Your task to perform on an android device: Open location settings Image 0: 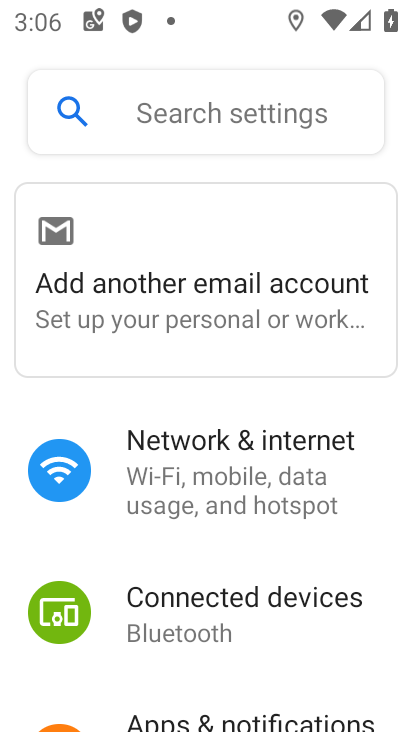
Step 0: drag from (284, 660) to (283, 152)
Your task to perform on an android device: Open location settings Image 1: 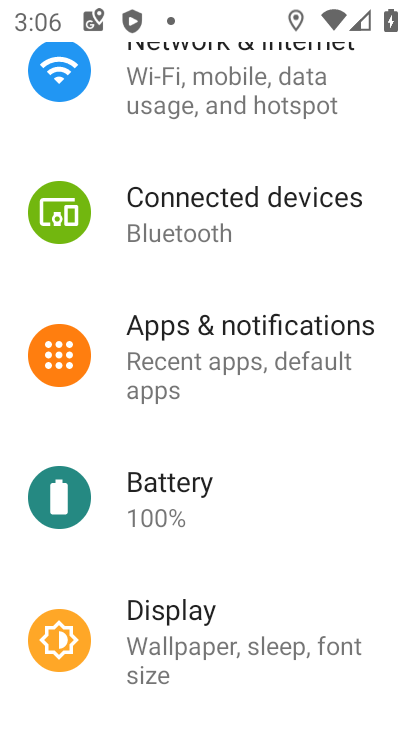
Step 1: drag from (258, 635) to (313, 372)
Your task to perform on an android device: Open location settings Image 2: 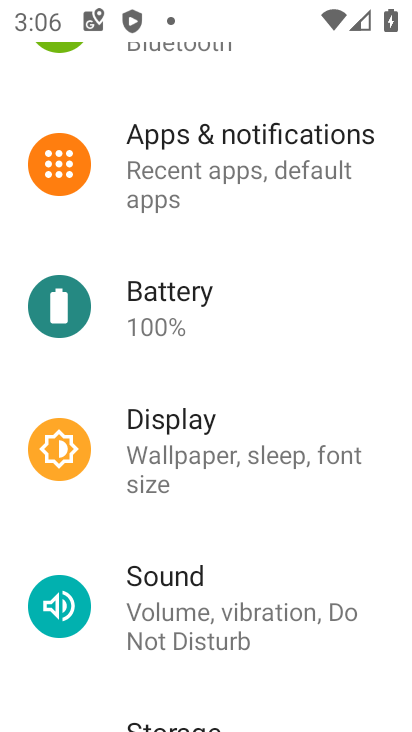
Step 2: drag from (261, 595) to (297, 233)
Your task to perform on an android device: Open location settings Image 3: 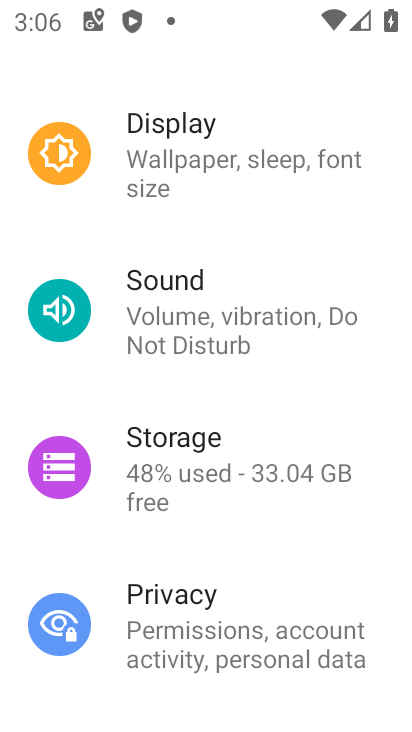
Step 3: drag from (276, 578) to (265, 181)
Your task to perform on an android device: Open location settings Image 4: 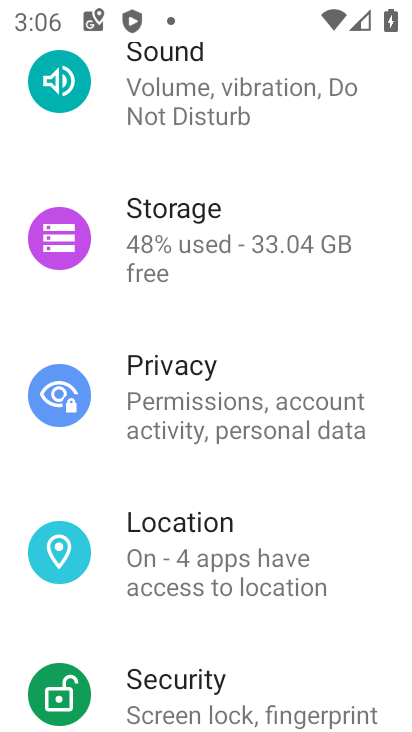
Step 4: drag from (273, 606) to (289, 227)
Your task to perform on an android device: Open location settings Image 5: 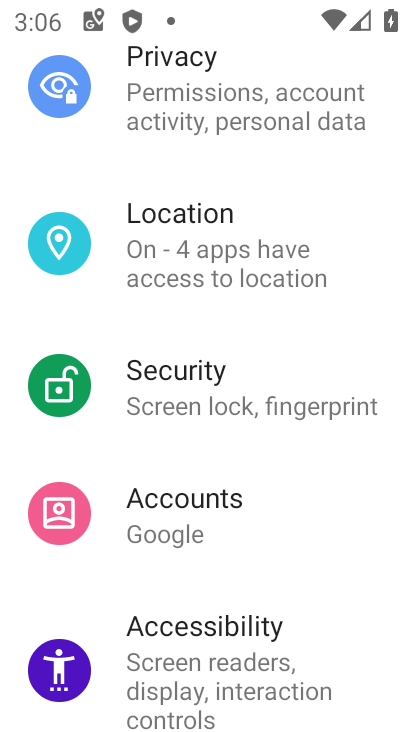
Step 5: click (264, 245)
Your task to perform on an android device: Open location settings Image 6: 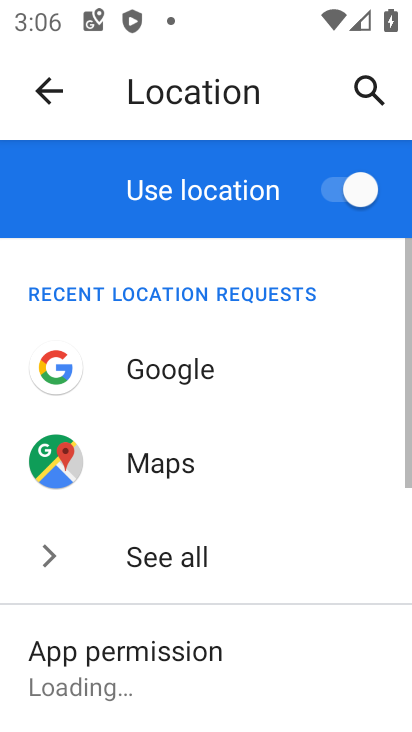
Step 6: task complete